Your task to perform on an android device: change text size in settings app Image 0: 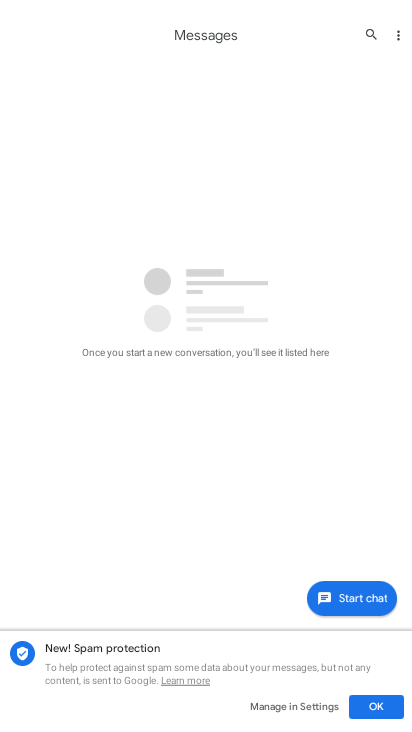
Step 0: press home button
Your task to perform on an android device: change text size in settings app Image 1: 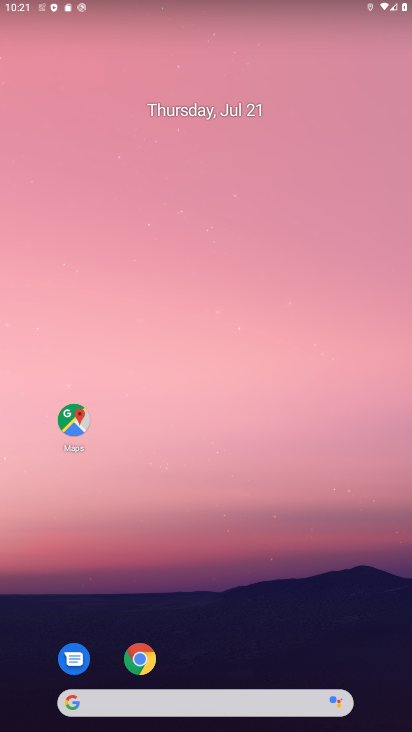
Step 1: drag from (202, 670) to (136, 81)
Your task to perform on an android device: change text size in settings app Image 2: 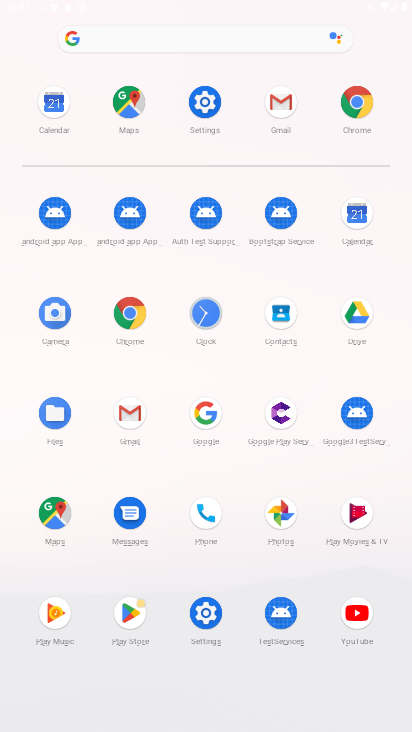
Step 2: click (208, 615)
Your task to perform on an android device: change text size in settings app Image 3: 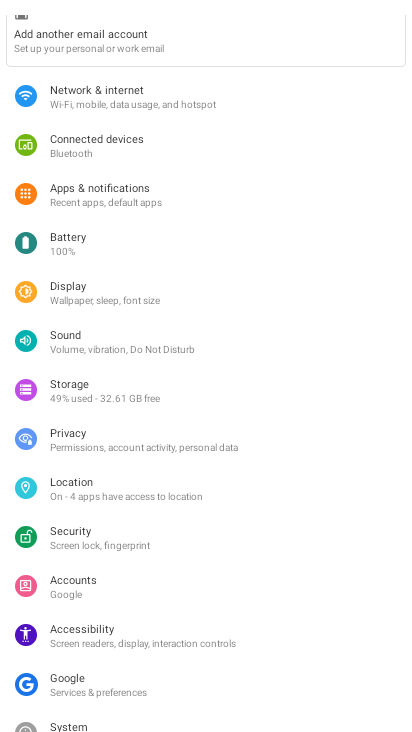
Step 3: click (75, 286)
Your task to perform on an android device: change text size in settings app Image 4: 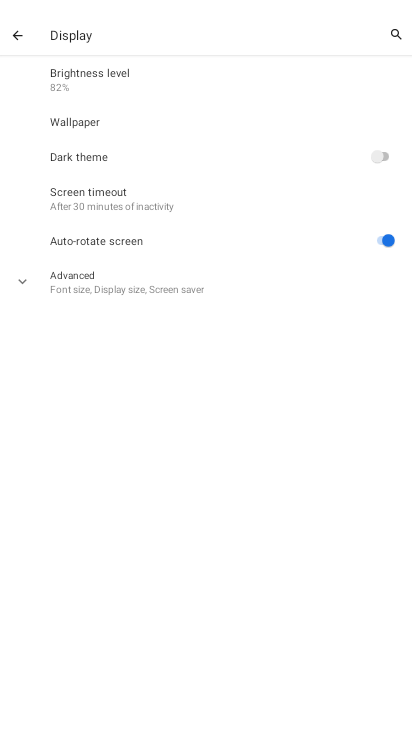
Step 4: click (75, 286)
Your task to perform on an android device: change text size in settings app Image 5: 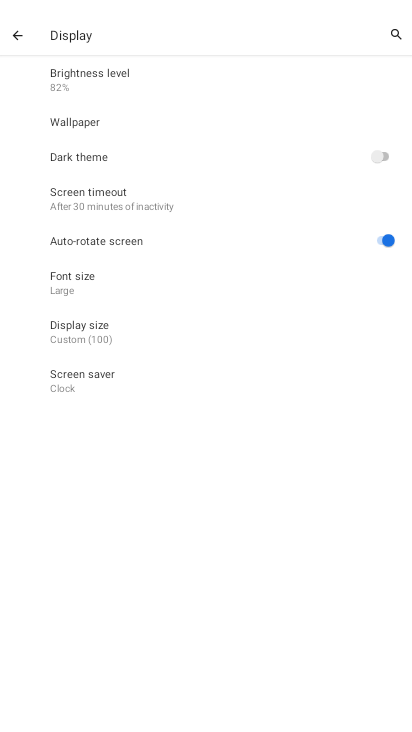
Step 5: click (62, 289)
Your task to perform on an android device: change text size in settings app Image 6: 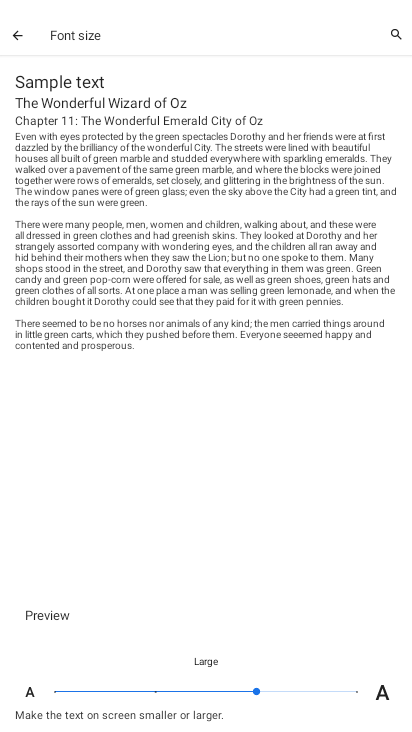
Step 6: click (152, 688)
Your task to perform on an android device: change text size in settings app Image 7: 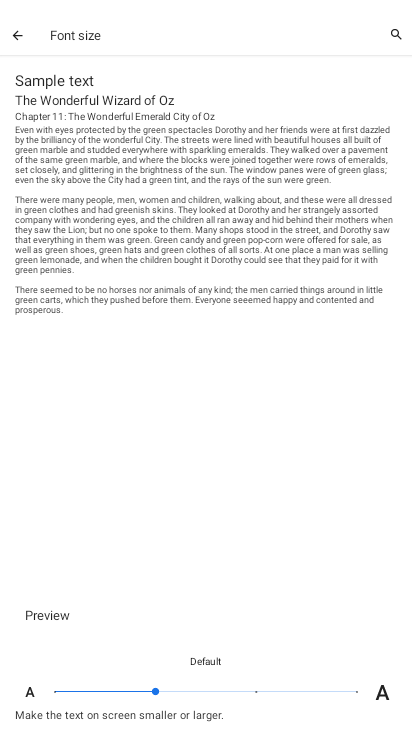
Step 7: click (152, 688)
Your task to perform on an android device: change text size in settings app Image 8: 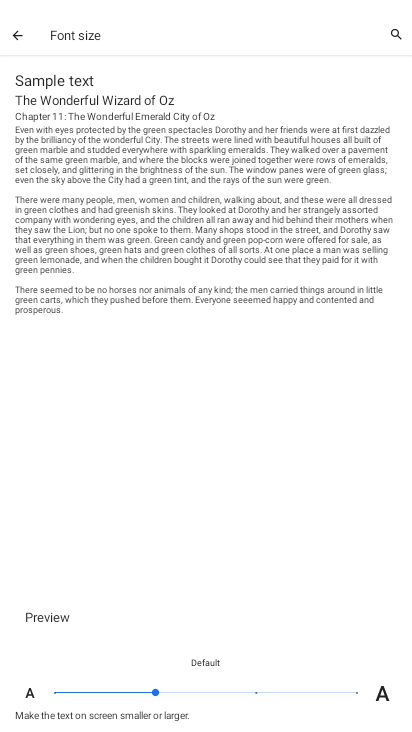
Step 8: click (354, 698)
Your task to perform on an android device: change text size in settings app Image 9: 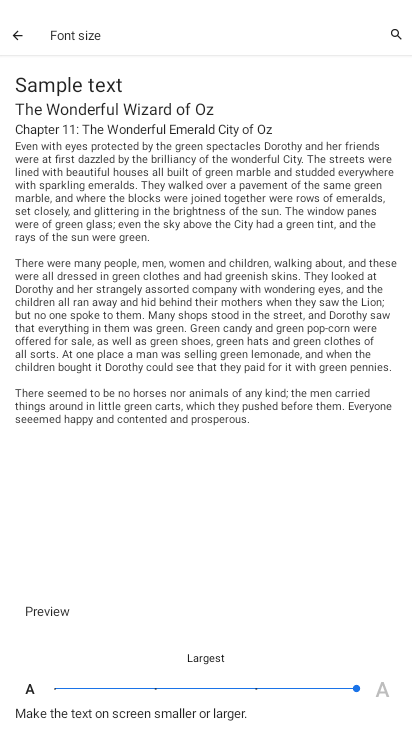
Step 9: task complete